Your task to perform on an android device: install app "Facebook" Image 0: 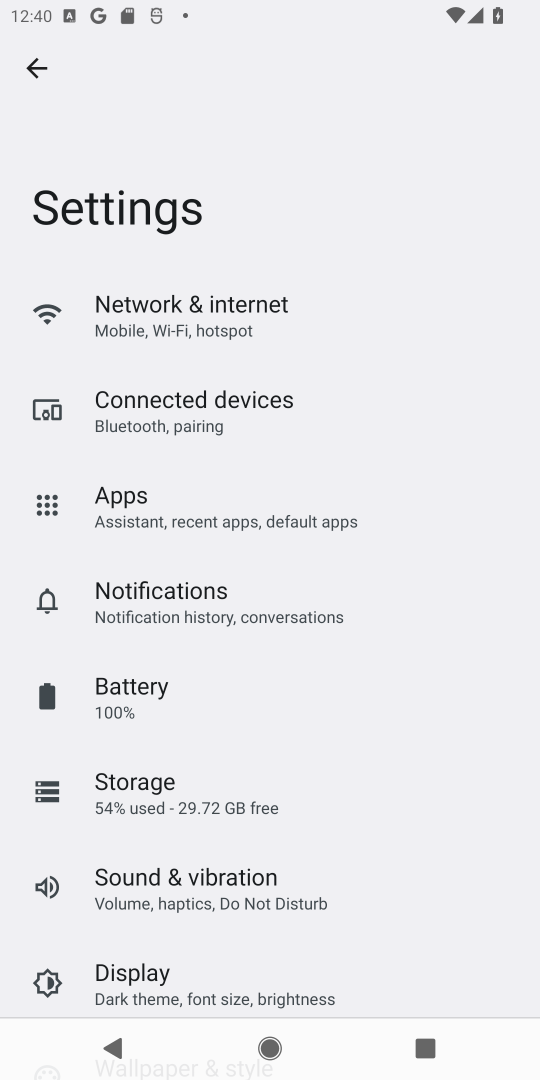
Step 0: press home button
Your task to perform on an android device: install app "Facebook" Image 1: 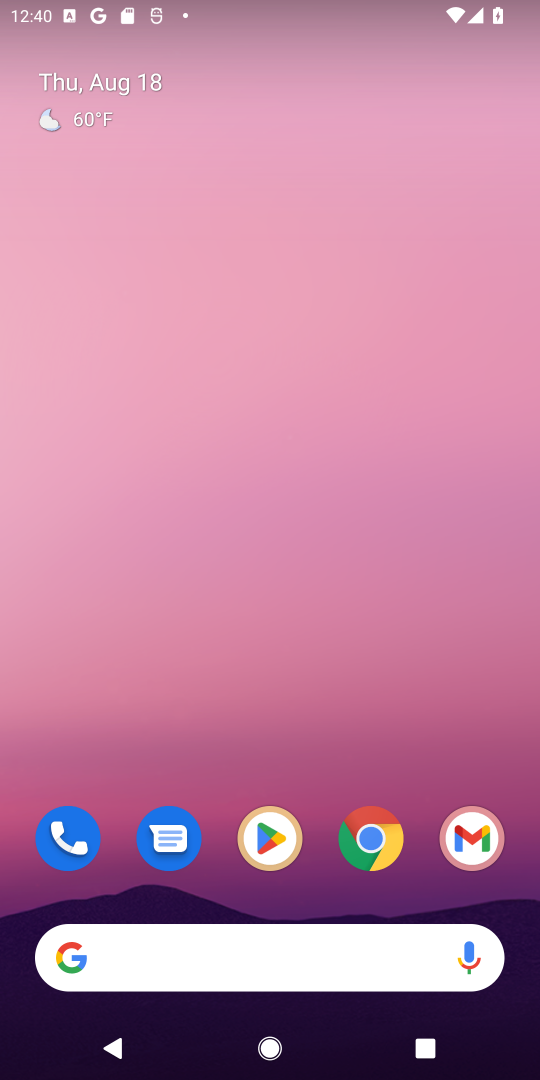
Step 1: click (255, 803)
Your task to perform on an android device: install app "Facebook" Image 2: 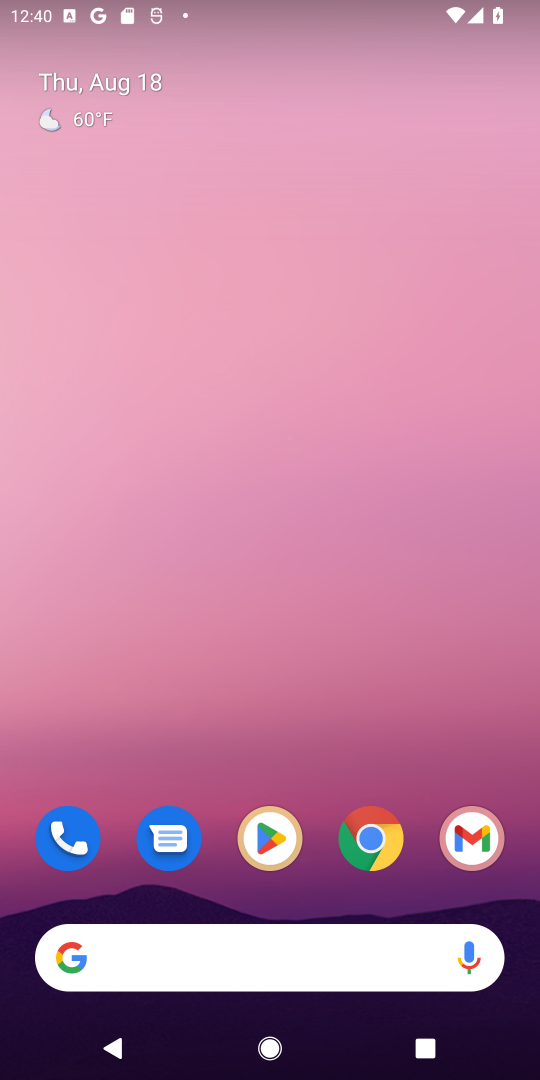
Step 2: click (270, 831)
Your task to perform on an android device: install app "Facebook" Image 3: 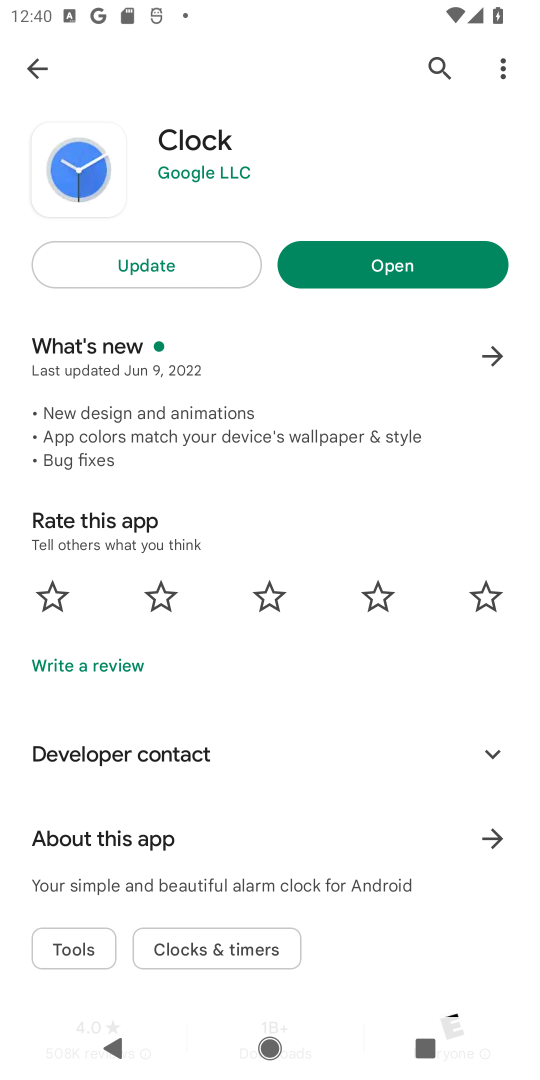
Step 3: click (432, 68)
Your task to perform on an android device: install app "Facebook" Image 4: 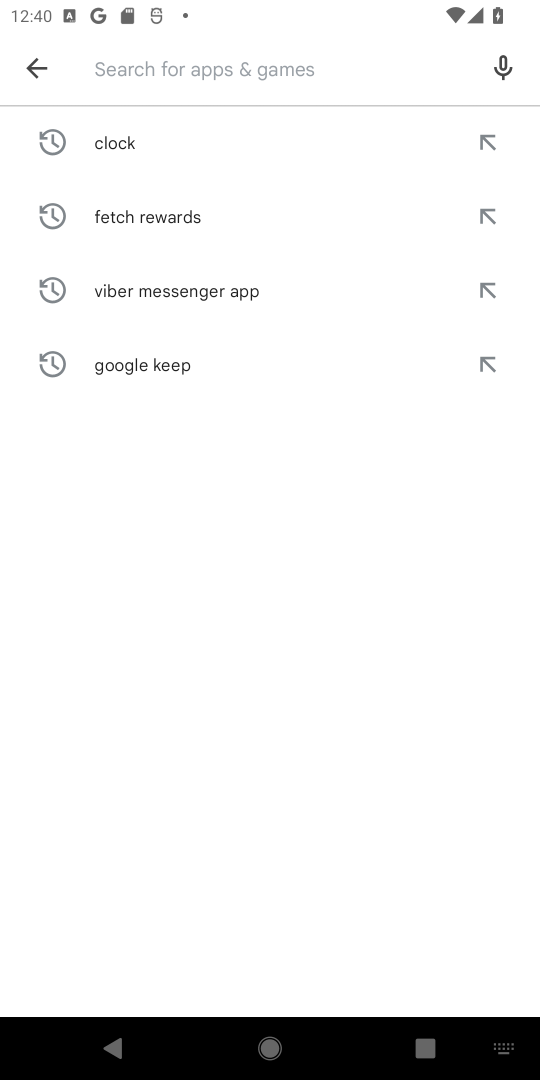
Step 4: type "Facebook"
Your task to perform on an android device: install app "Facebook" Image 5: 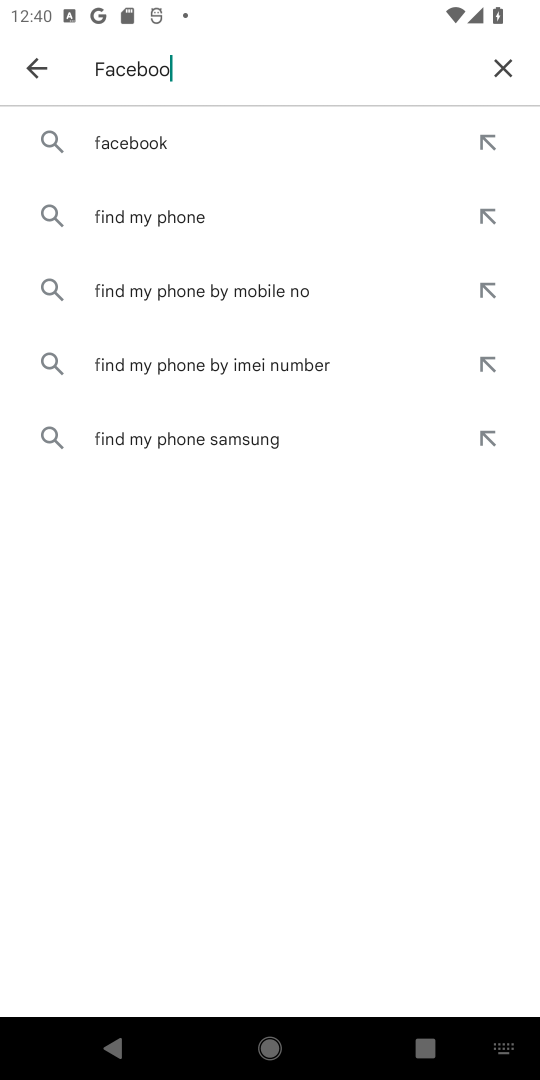
Step 5: type ""
Your task to perform on an android device: install app "Facebook" Image 6: 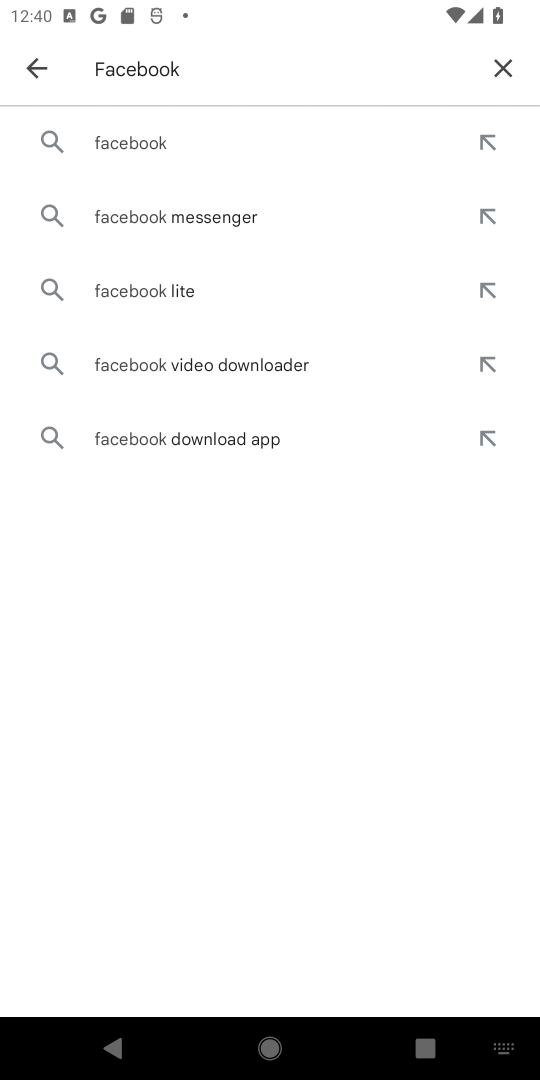
Step 6: click (230, 135)
Your task to perform on an android device: install app "Facebook" Image 7: 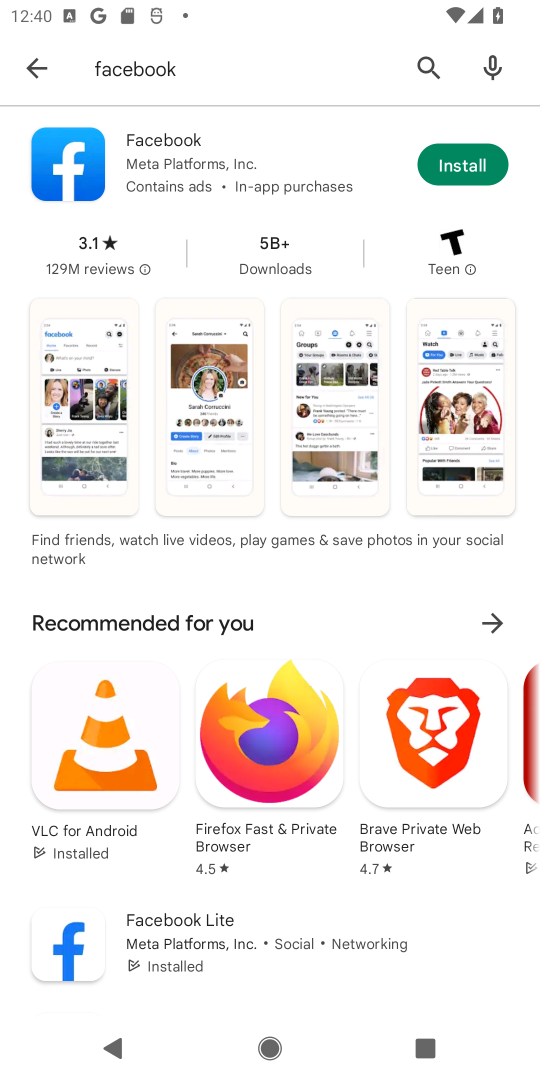
Step 7: click (471, 153)
Your task to perform on an android device: install app "Facebook" Image 8: 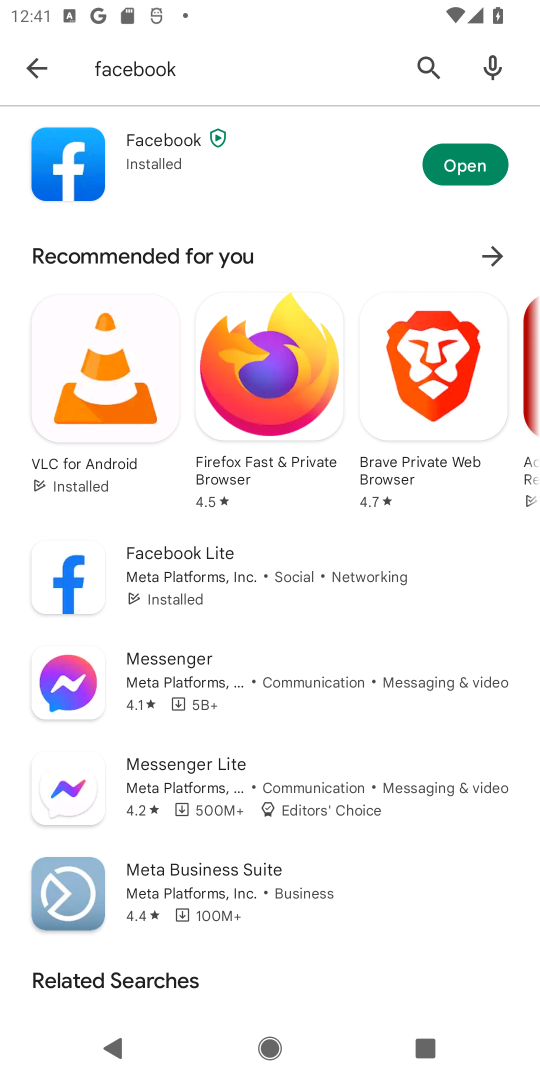
Step 8: task complete